Your task to perform on an android device: Go to sound settings Image 0: 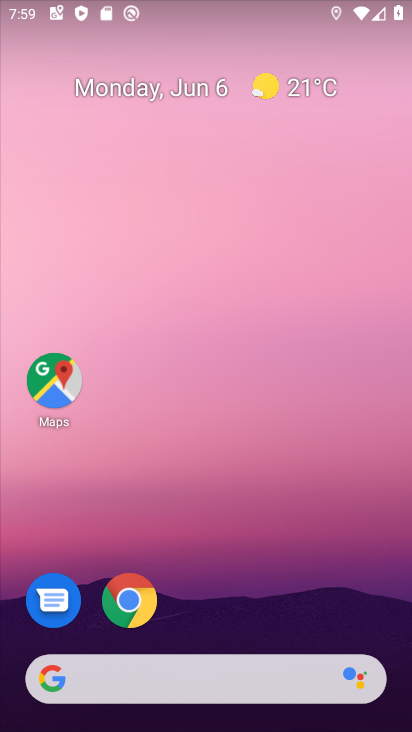
Step 0: drag from (376, 622) to (338, 218)
Your task to perform on an android device: Go to sound settings Image 1: 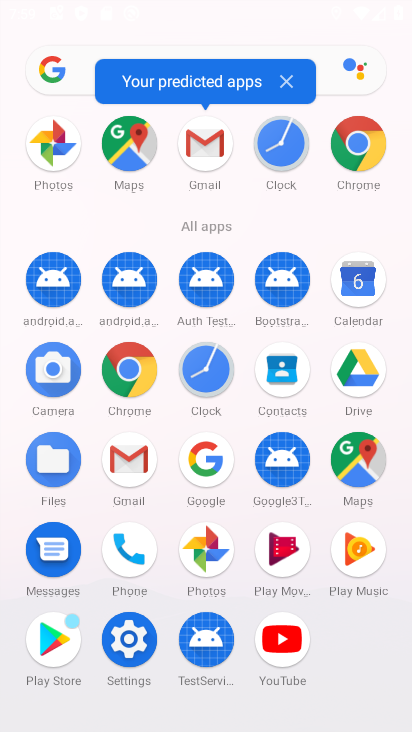
Step 1: click (128, 635)
Your task to perform on an android device: Go to sound settings Image 2: 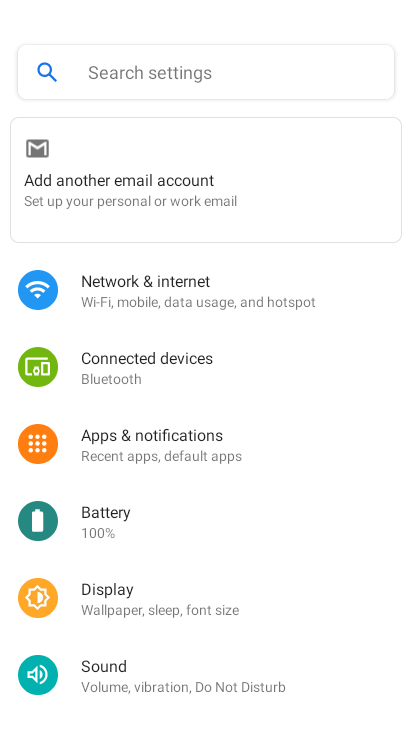
Step 2: drag from (303, 605) to (316, 248)
Your task to perform on an android device: Go to sound settings Image 3: 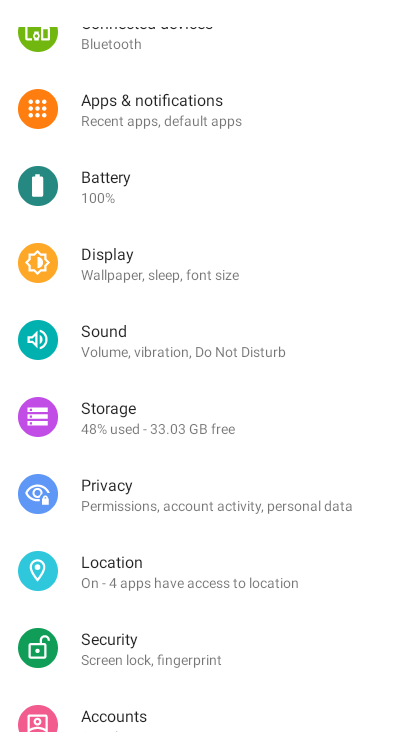
Step 3: click (102, 349)
Your task to perform on an android device: Go to sound settings Image 4: 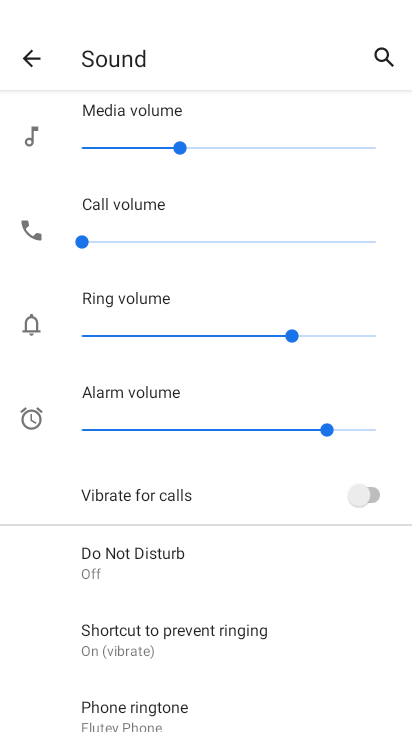
Step 4: drag from (346, 648) to (341, 247)
Your task to perform on an android device: Go to sound settings Image 5: 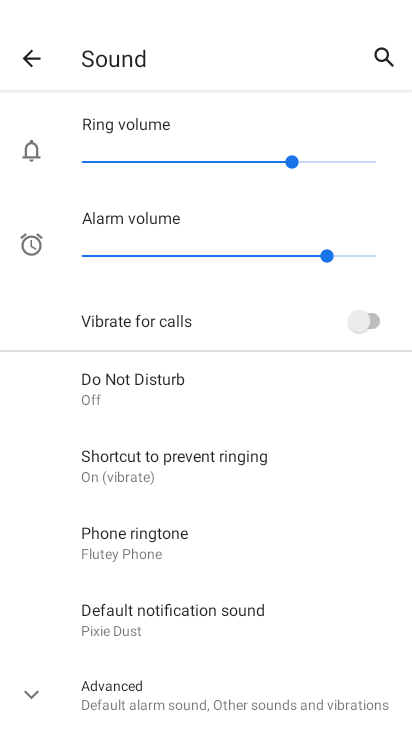
Step 5: click (20, 689)
Your task to perform on an android device: Go to sound settings Image 6: 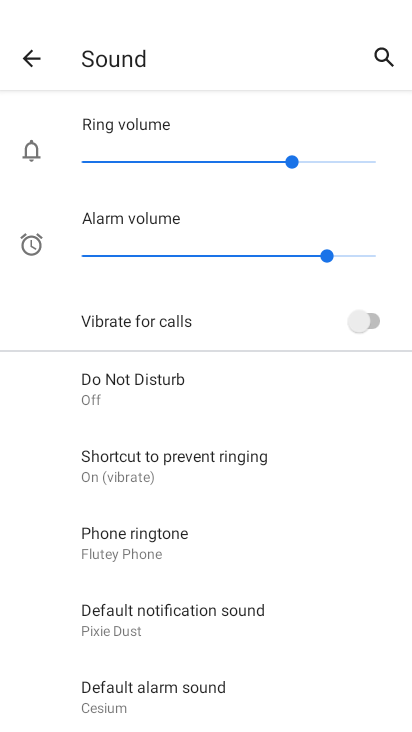
Step 6: task complete